Your task to perform on an android device: change notification settings in the gmail app Image 0: 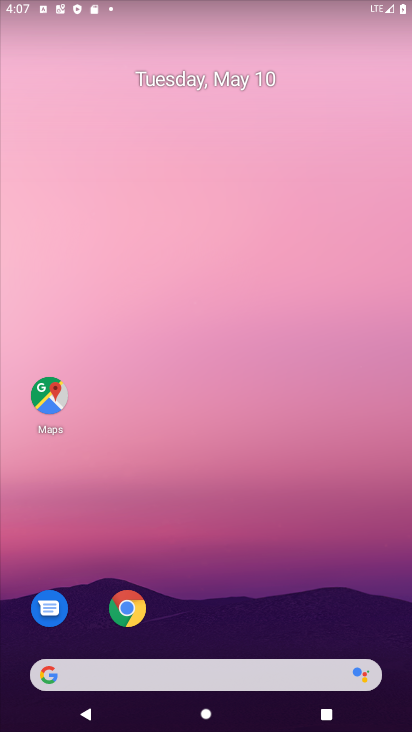
Step 0: drag from (238, 626) to (246, 60)
Your task to perform on an android device: change notification settings in the gmail app Image 1: 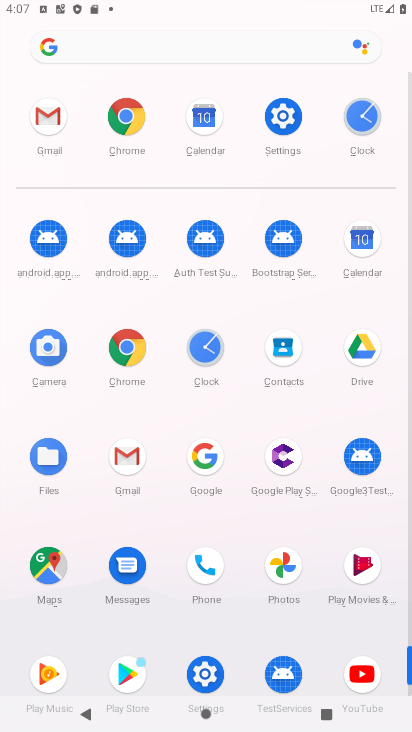
Step 1: click (124, 455)
Your task to perform on an android device: change notification settings in the gmail app Image 2: 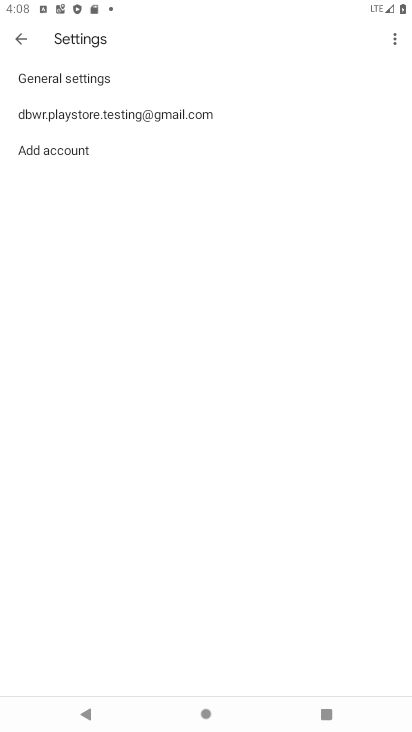
Step 2: click (106, 109)
Your task to perform on an android device: change notification settings in the gmail app Image 3: 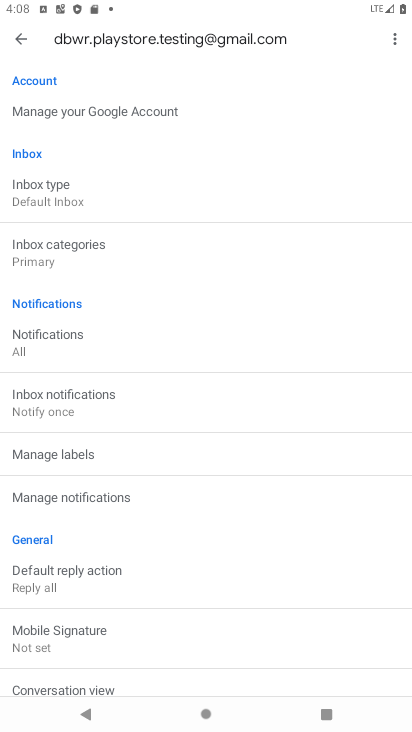
Step 3: click (59, 490)
Your task to perform on an android device: change notification settings in the gmail app Image 4: 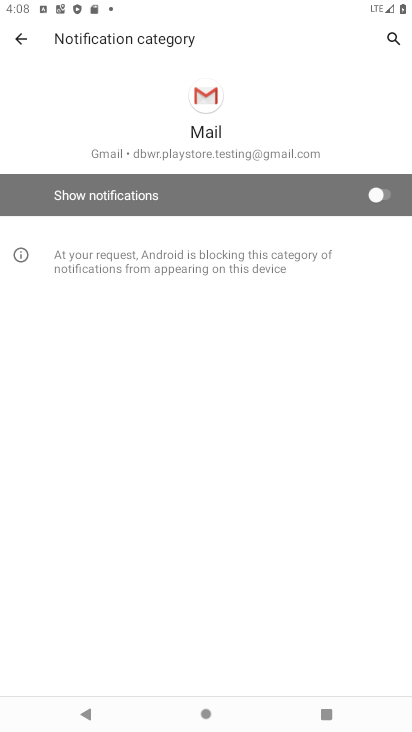
Step 4: click (381, 197)
Your task to perform on an android device: change notification settings in the gmail app Image 5: 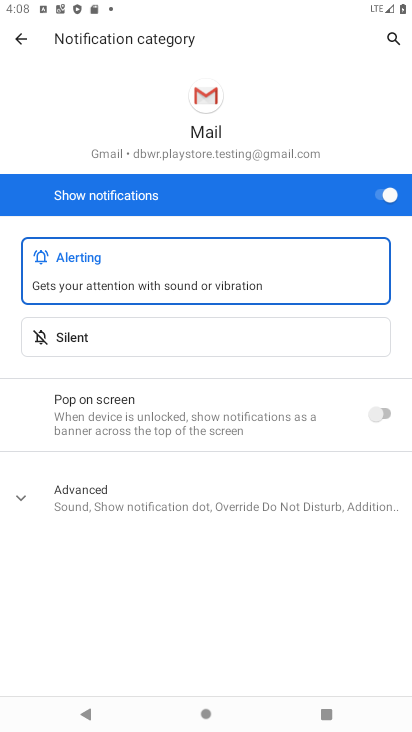
Step 5: task complete